Your task to perform on an android device: turn off airplane mode Image 0: 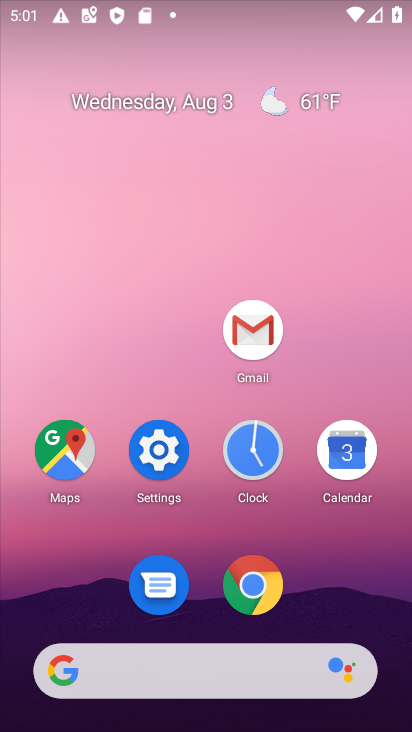
Step 0: drag from (388, 614) to (277, 141)
Your task to perform on an android device: turn off airplane mode Image 1: 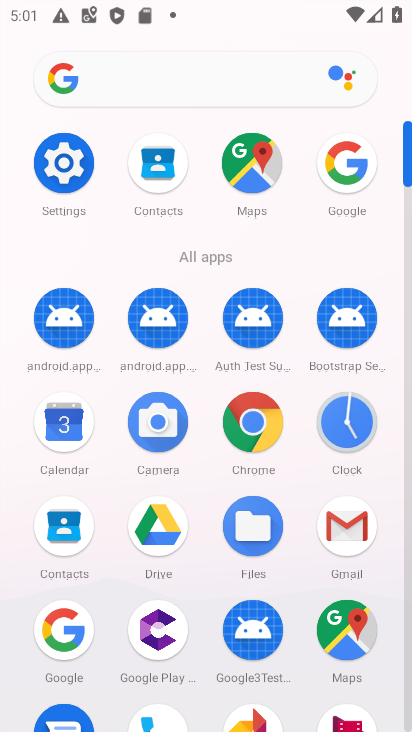
Step 1: click (68, 166)
Your task to perform on an android device: turn off airplane mode Image 2: 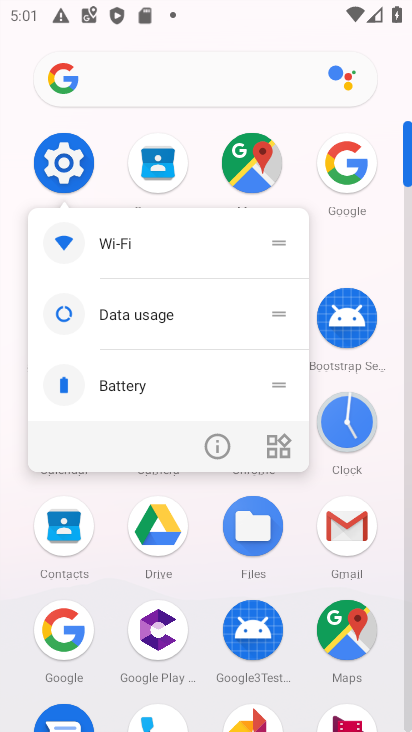
Step 2: click (68, 168)
Your task to perform on an android device: turn off airplane mode Image 3: 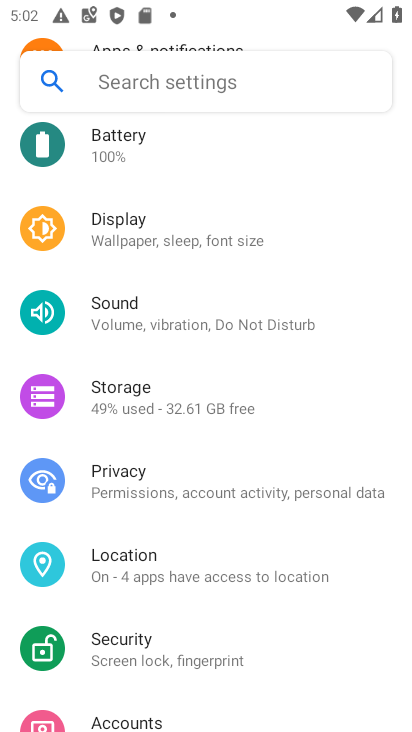
Step 3: drag from (314, 154) to (334, 650)
Your task to perform on an android device: turn off airplane mode Image 4: 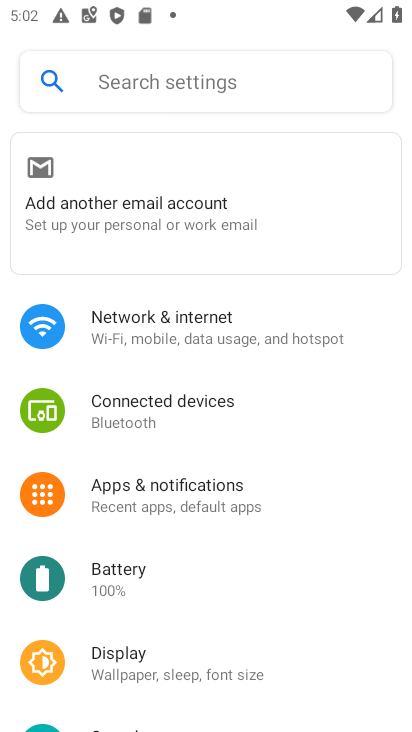
Step 4: click (127, 340)
Your task to perform on an android device: turn off airplane mode Image 5: 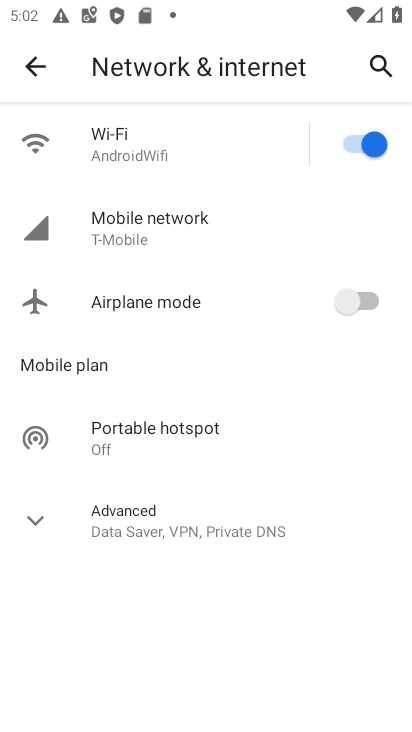
Step 5: click (376, 288)
Your task to perform on an android device: turn off airplane mode Image 6: 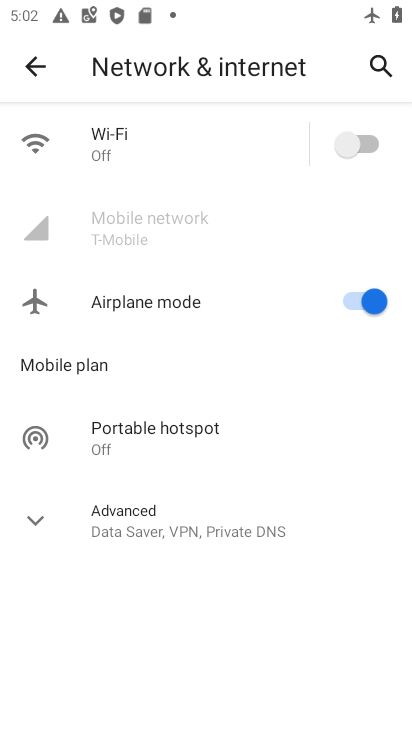
Step 6: click (364, 296)
Your task to perform on an android device: turn off airplane mode Image 7: 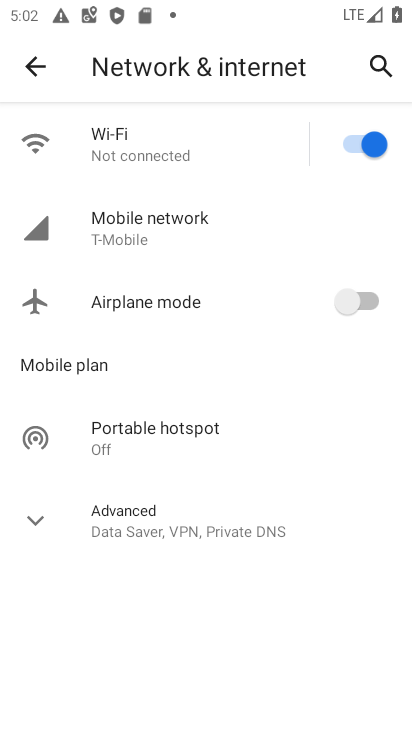
Step 7: task complete